Your task to perform on an android device: change timer sound Image 0: 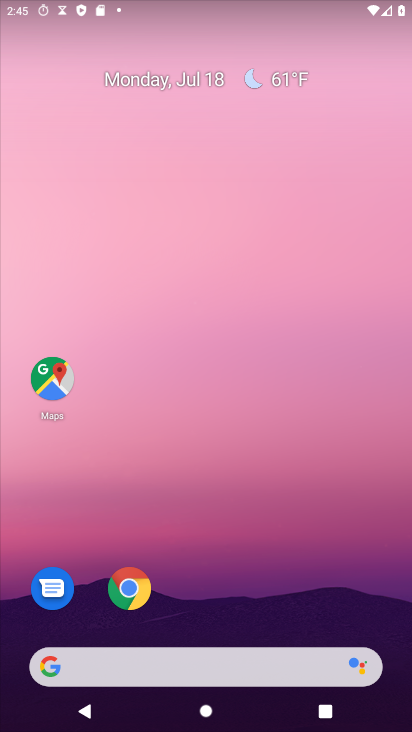
Step 0: drag from (408, 551) to (341, 14)
Your task to perform on an android device: change timer sound Image 1: 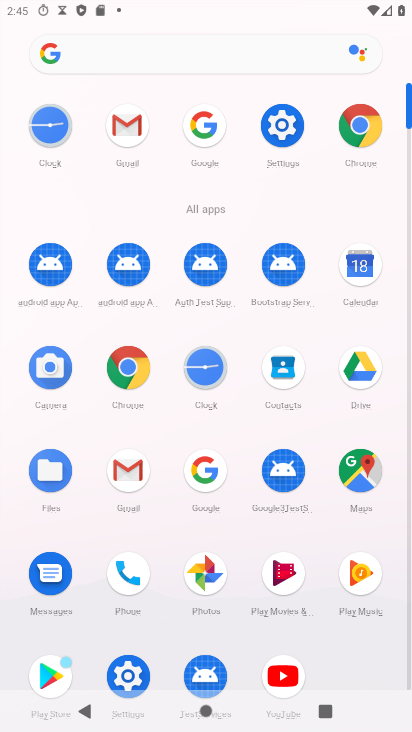
Step 1: click (222, 359)
Your task to perform on an android device: change timer sound Image 2: 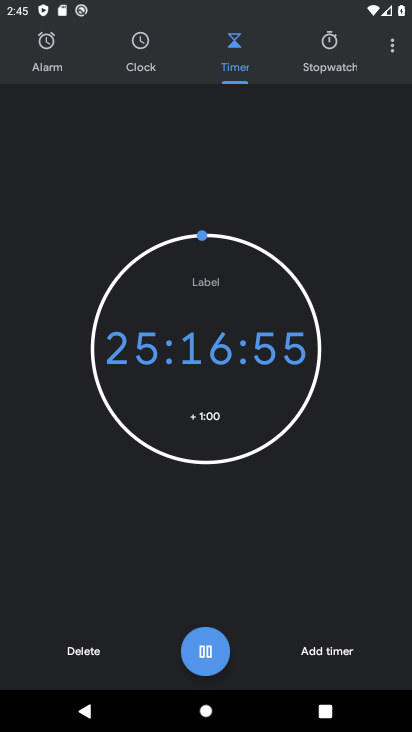
Step 2: click (393, 48)
Your task to perform on an android device: change timer sound Image 3: 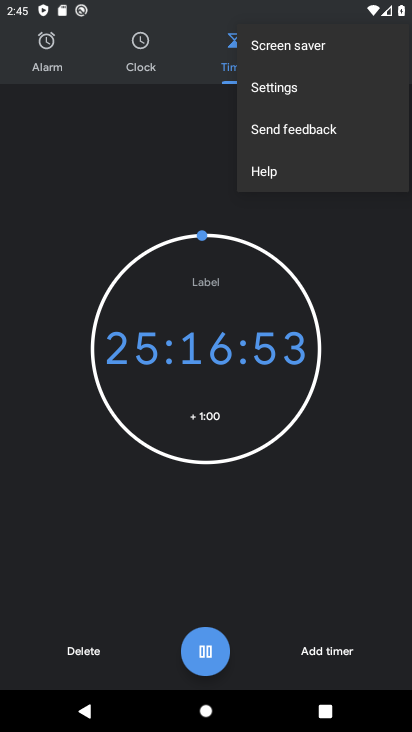
Step 3: click (299, 96)
Your task to perform on an android device: change timer sound Image 4: 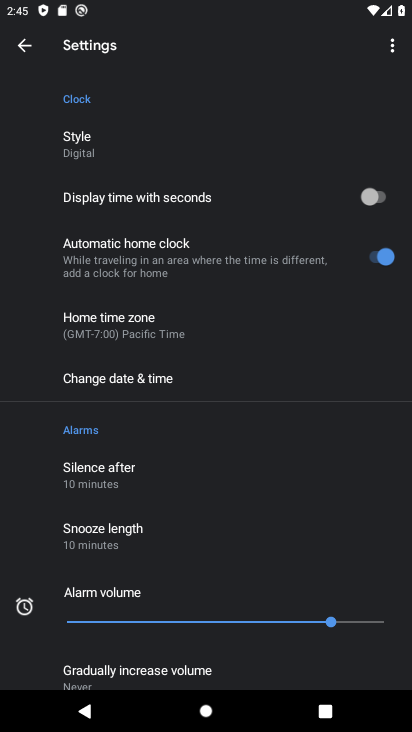
Step 4: drag from (193, 619) to (197, 180)
Your task to perform on an android device: change timer sound Image 5: 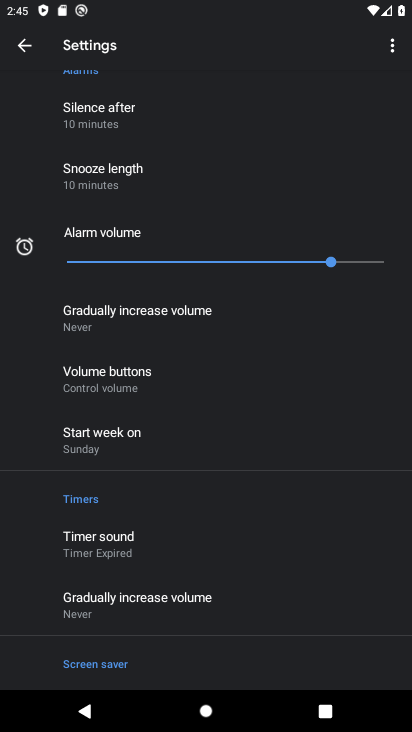
Step 5: click (135, 537)
Your task to perform on an android device: change timer sound Image 6: 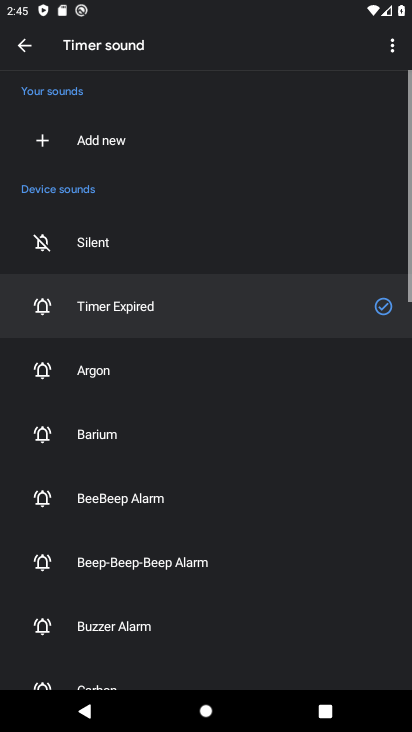
Step 6: click (104, 416)
Your task to perform on an android device: change timer sound Image 7: 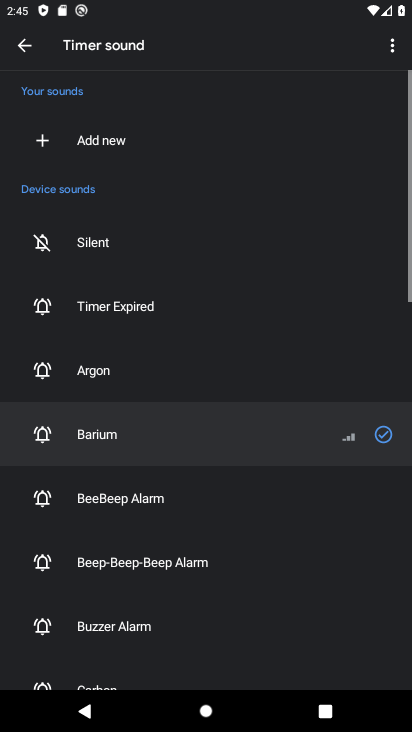
Step 7: task complete